Your task to perform on an android device: What is the recent news? Image 0: 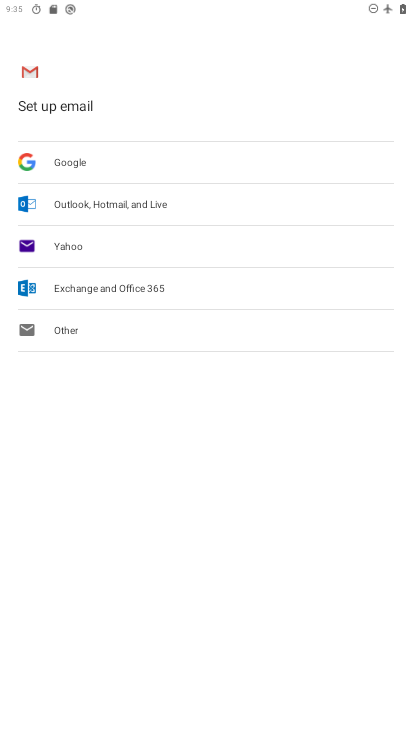
Step 0: press home button
Your task to perform on an android device: What is the recent news? Image 1: 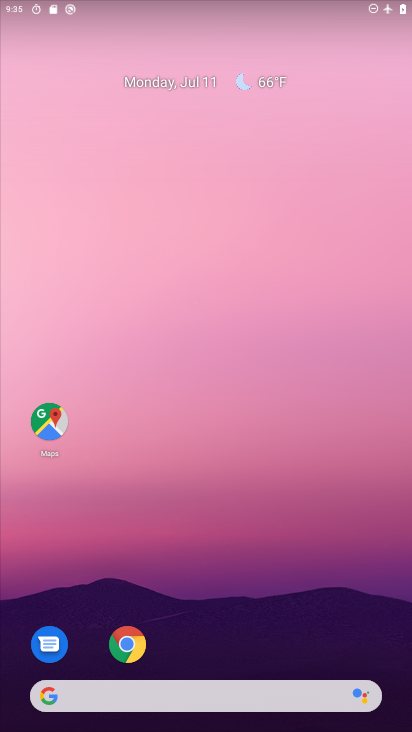
Step 1: drag from (300, 541) to (266, 108)
Your task to perform on an android device: What is the recent news? Image 2: 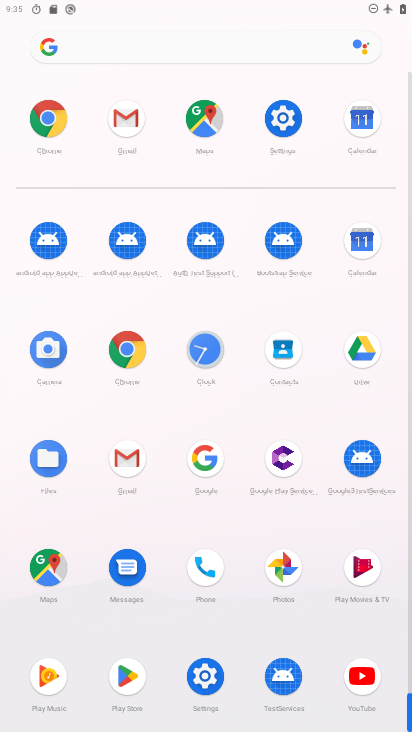
Step 2: click (47, 114)
Your task to perform on an android device: What is the recent news? Image 3: 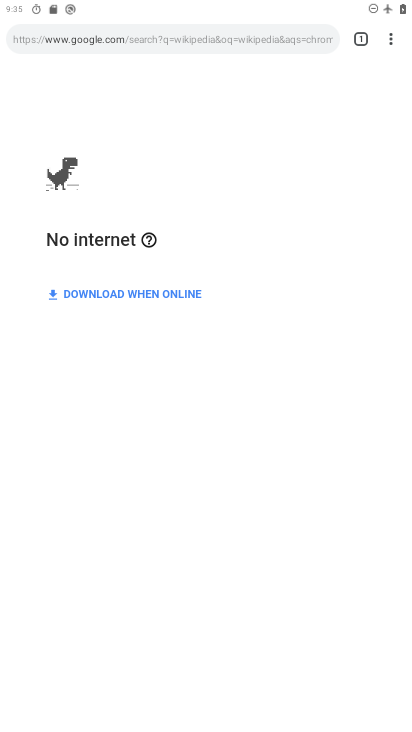
Step 3: click (206, 42)
Your task to perform on an android device: What is the recent news? Image 4: 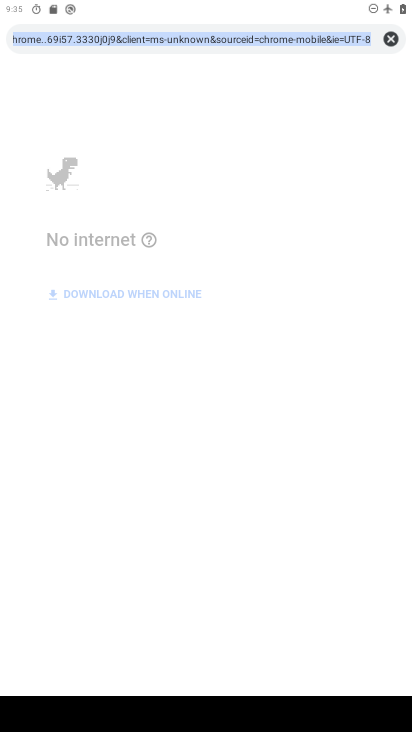
Step 4: type "news"
Your task to perform on an android device: What is the recent news? Image 5: 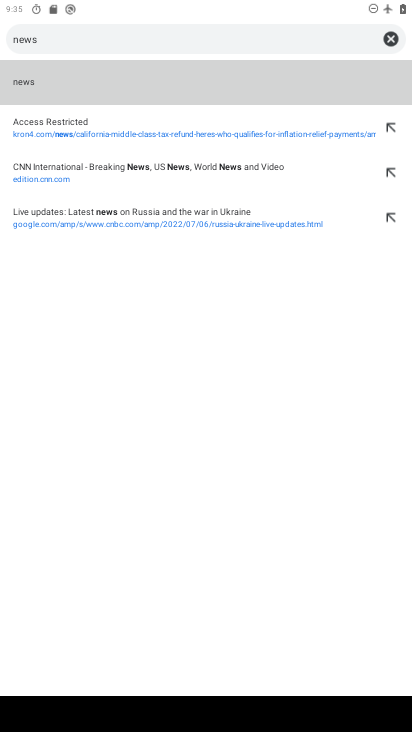
Step 5: click (28, 82)
Your task to perform on an android device: What is the recent news? Image 6: 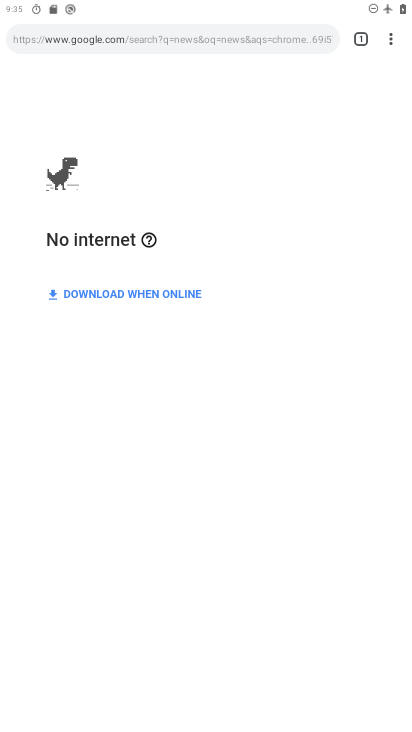
Step 6: task complete